Your task to perform on an android device: What's on my calendar today? Image 0: 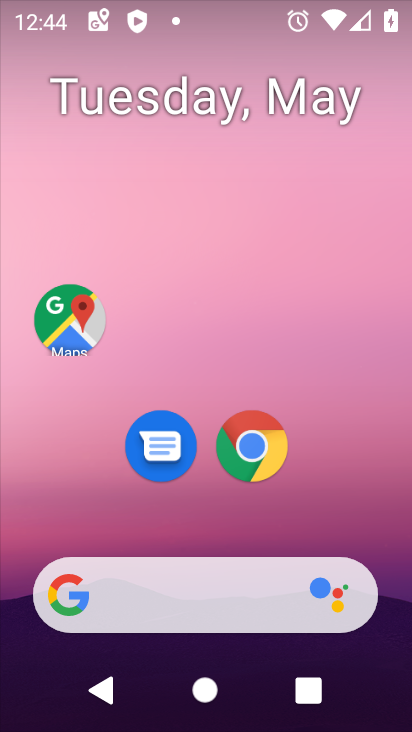
Step 0: drag from (322, 507) to (310, 130)
Your task to perform on an android device: What's on my calendar today? Image 1: 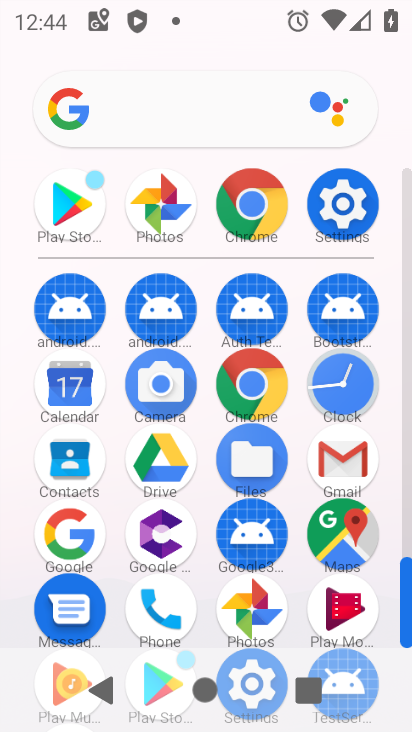
Step 1: click (81, 378)
Your task to perform on an android device: What's on my calendar today? Image 2: 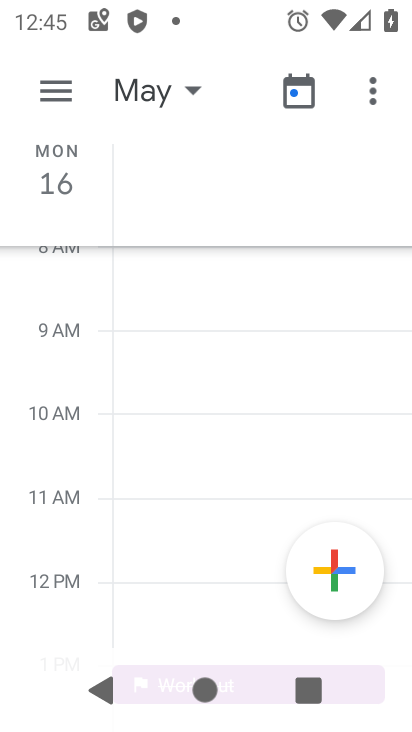
Step 2: drag from (164, 493) to (236, 118)
Your task to perform on an android device: What's on my calendar today? Image 3: 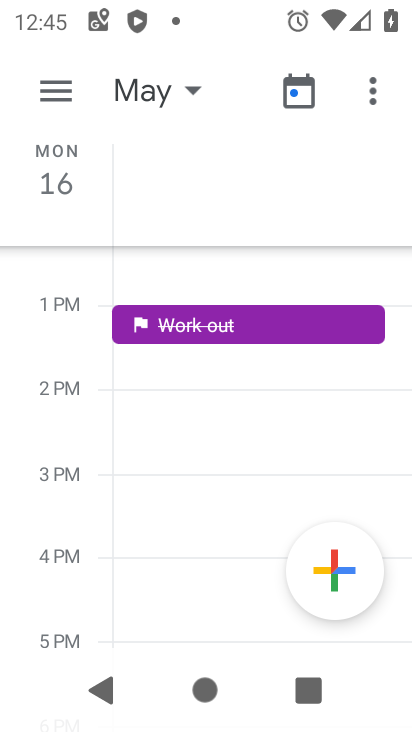
Step 3: drag from (147, 553) to (274, 145)
Your task to perform on an android device: What's on my calendar today? Image 4: 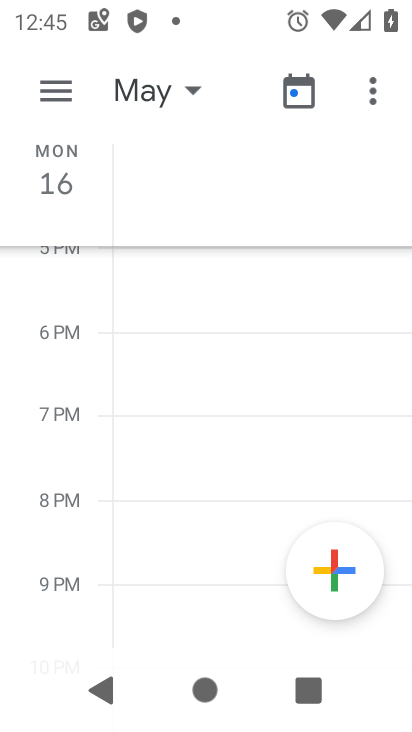
Step 4: drag from (177, 518) to (252, 120)
Your task to perform on an android device: What's on my calendar today? Image 5: 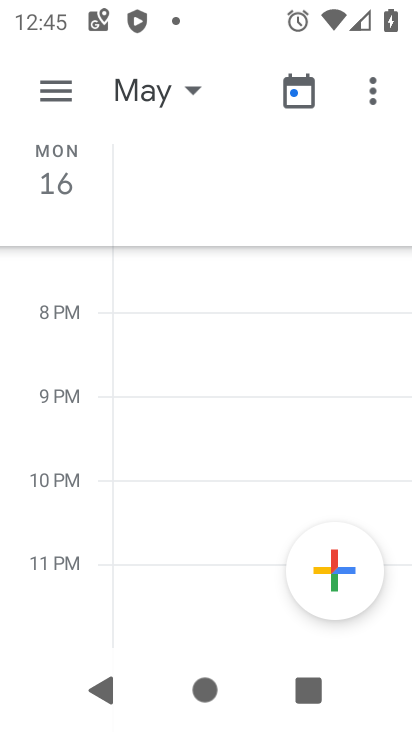
Step 5: drag from (166, 550) to (254, 111)
Your task to perform on an android device: What's on my calendar today? Image 6: 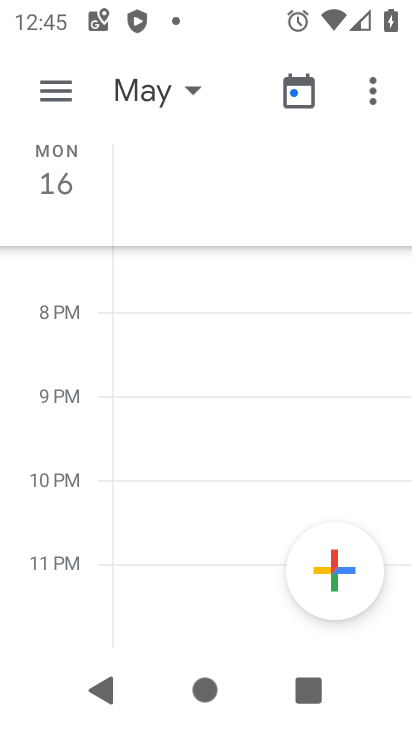
Step 6: click (53, 78)
Your task to perform on an android device: What's on my calendar today? Image 7: 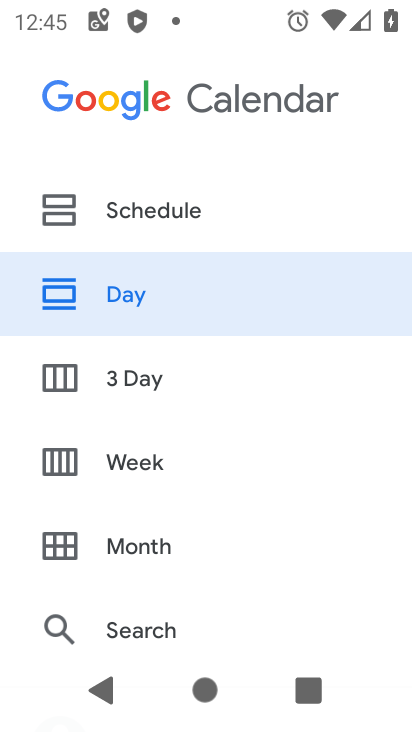
Step 7: click (152, 541)
Your task to perform on an android device: What's on my calendar today? Image 8: 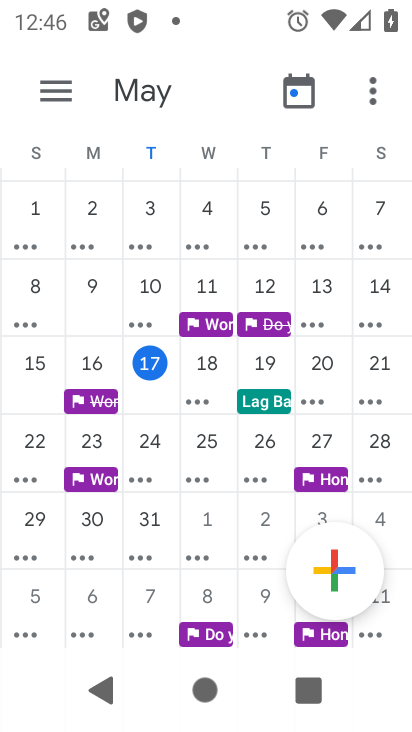
Step 8: click (152, 365)
Your task to perform on an android device: What's on my calendar today? Image 9: 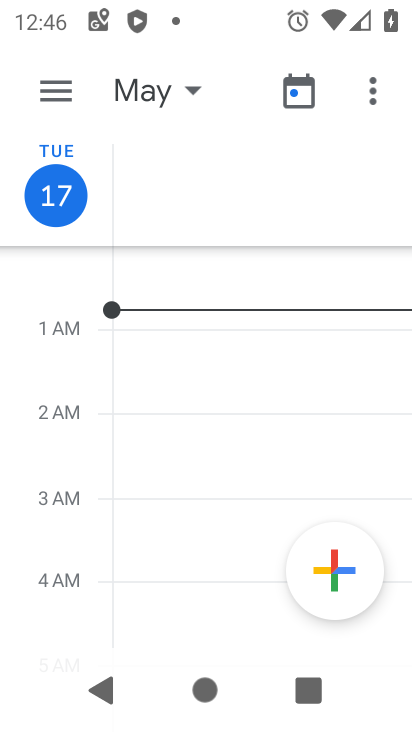
Step 9: task complete